Your task to perform on an android device: check android version Image 0: 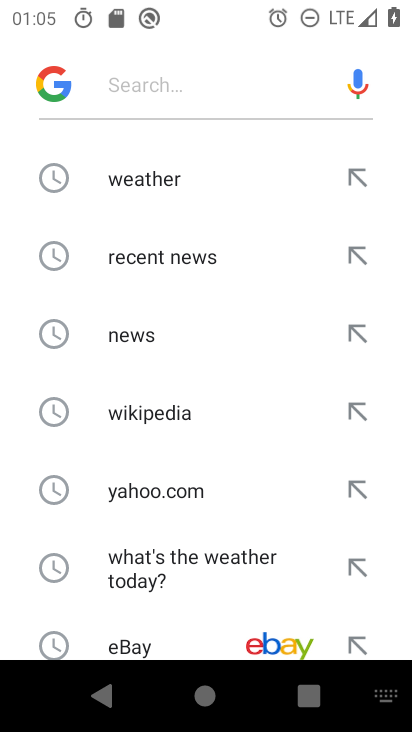
Step 0: press home button
Your task to perform on an android device: check android version Image 1: 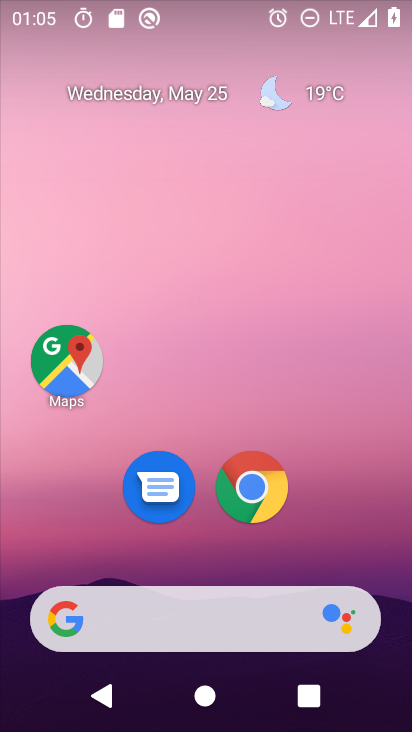
Step 1: drag from (333, 579) to (352, 13)
Your task to perform on an android device: check android version Image 2: 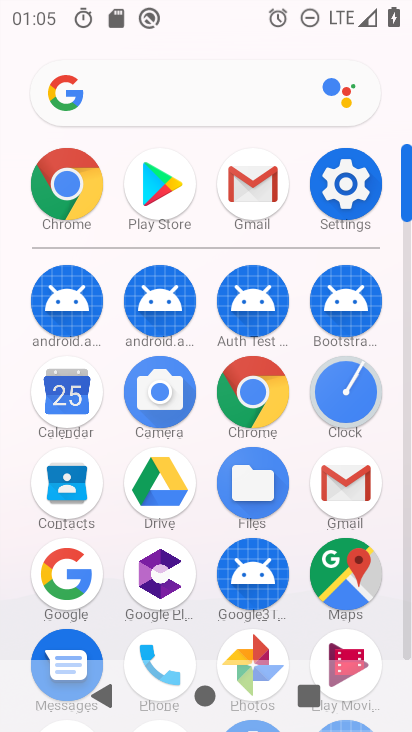
Step 2: click (348, 191)
Your task to perform on an android device: check android version Image 3: 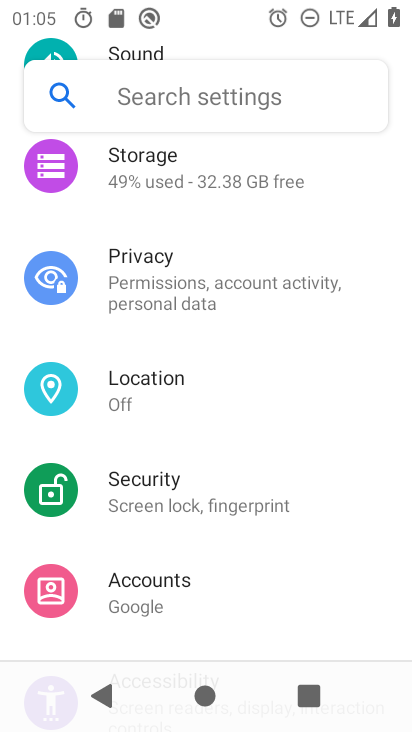
Step 3: drag from (260, 588) to (291, 106)
Your task to perform on an android device: check android version Image 4: 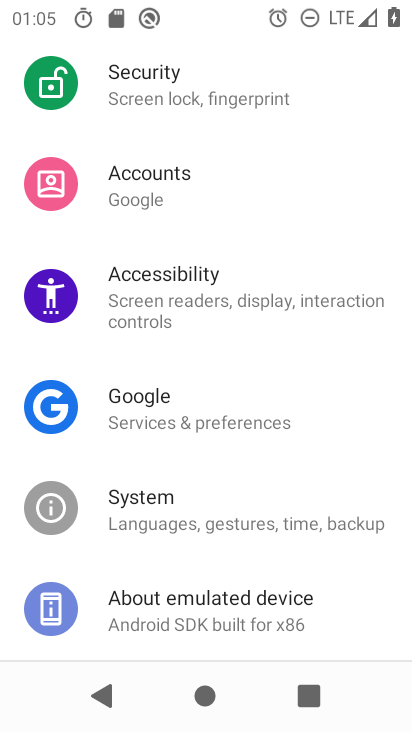
Step 4: drag from (230, 516) to (242, 69)
Your task to perform on an android device: check android version Image 5: 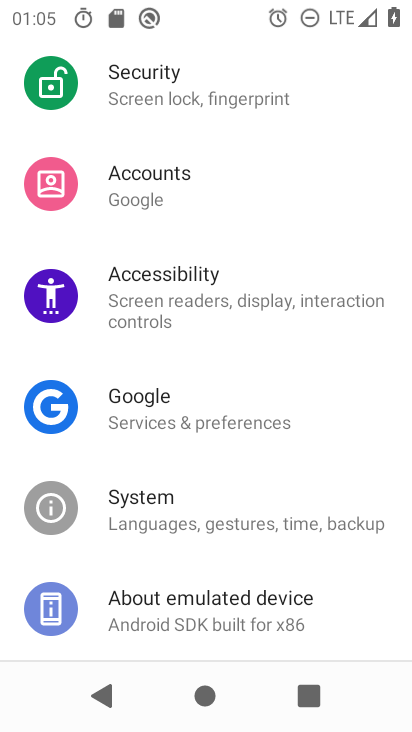
Step 5: click (186, 606)
Your task to perform on an android device: check android version Image 6: 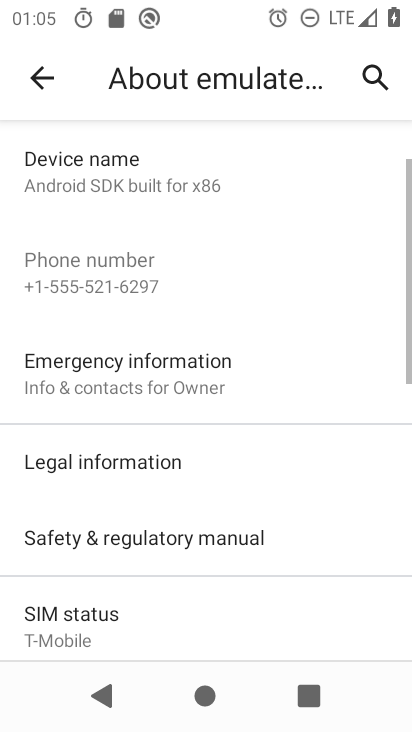
Step 6: drag from (233, 530) to (233, 167)
Your task to perform on an android device: check android version Image 7: 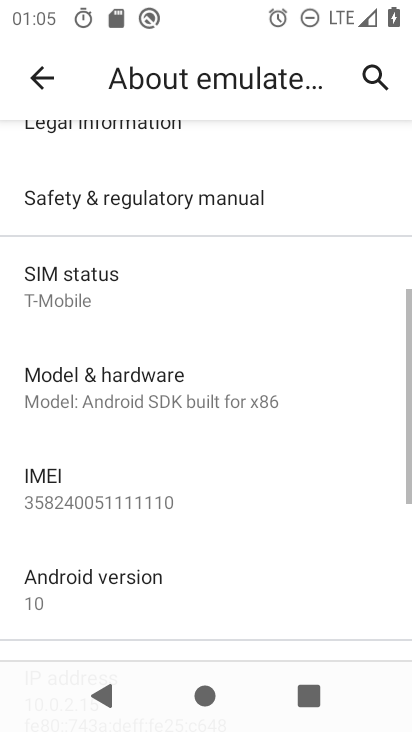
Step 7: click (117, 582)
Your task to perform on an android device: check android version Image 8: 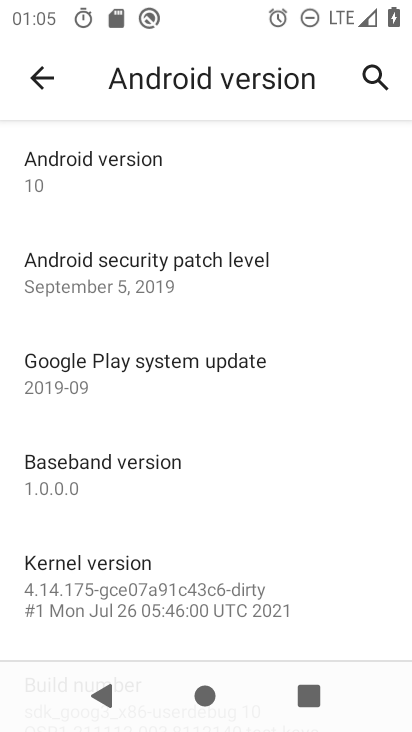
Step 8: task complete